Your task to perform on an android device: turn on showing notifications on the lock screen Image 0: 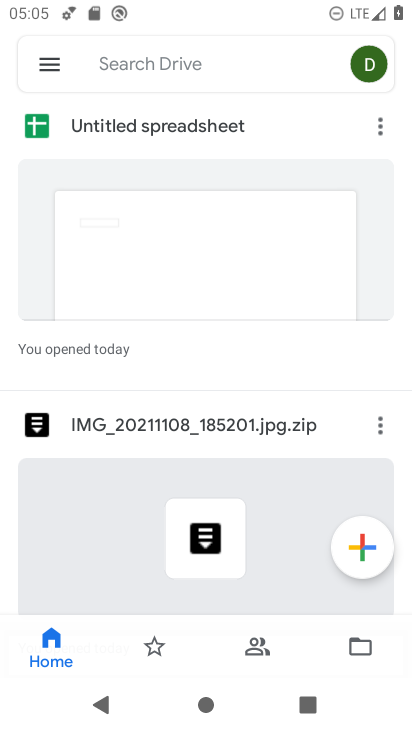
Step 0: press home button
Your task to perform on an android device: turn on showing notifications on the lock screen Image 1: 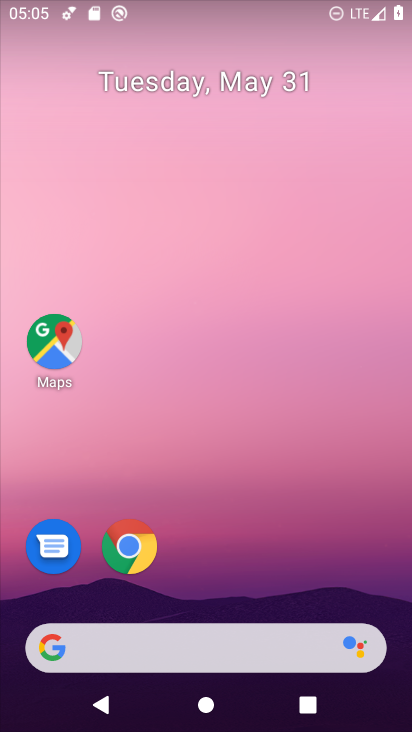
Step 1: drag from (214, 606) to (250, 282)
Your task to perform on an android device: turn on showing notifications on the lock screen Image 2: 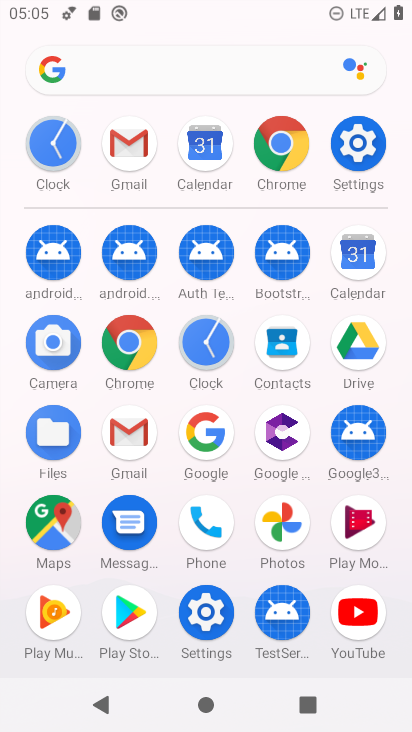
Step 2: click (348, 170)
Your task to perform on an android device: turn on showing notifications on the lock screen Image 3: 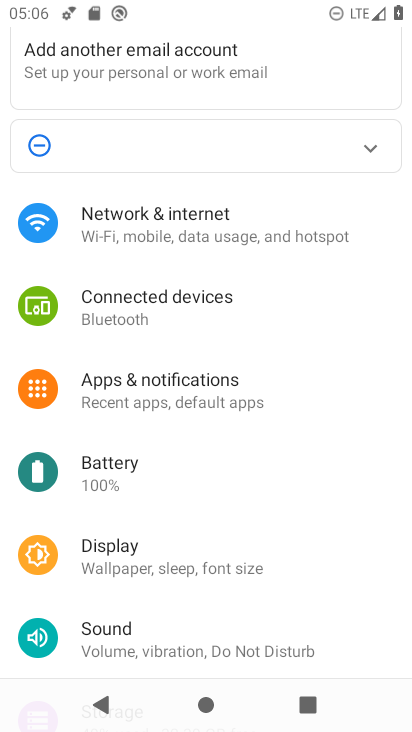
Step 3: click (172, 406)
Your task to perform on an android device: turn on showing notifications on the lock screen Image 4: 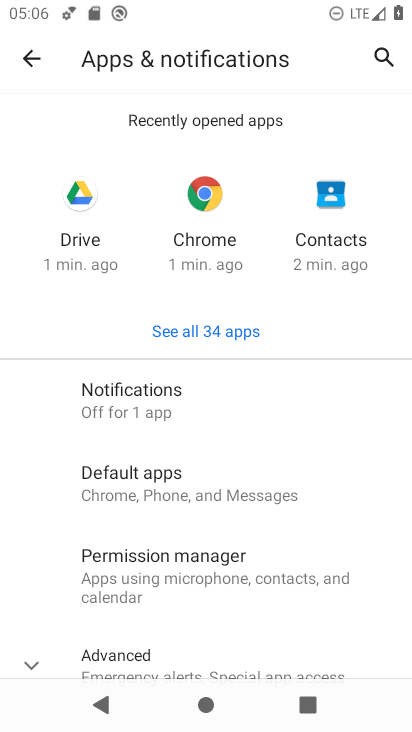
Step 4: click (172, 406)
Your task to perform on an android device: turn on showing notifications on the lock screen Image 5: 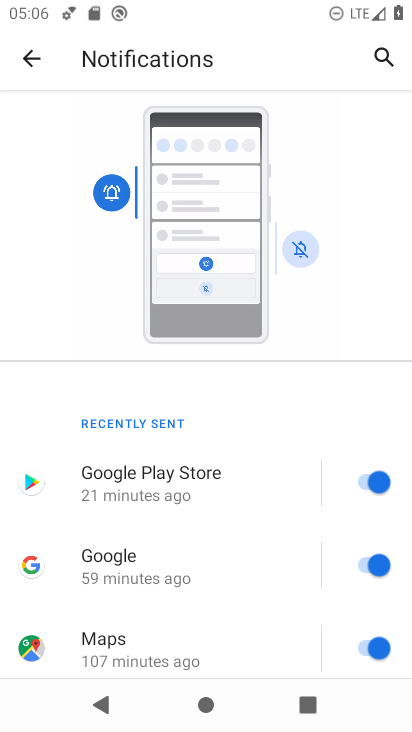
Step 5: drag from (228, 645) to (235, 416)
Your task to perform on an android device: turn on showing notifications on the lock screen Image 6: 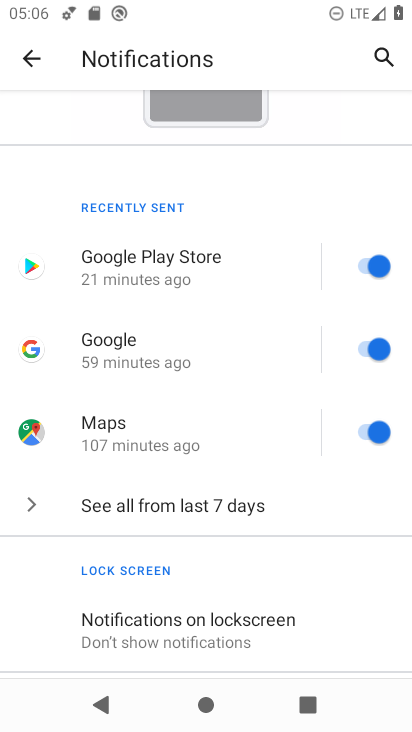
Step 6: click (123, 613)
Your task to perform on an android device: turn on showing notifications on the lock screen Image 7: 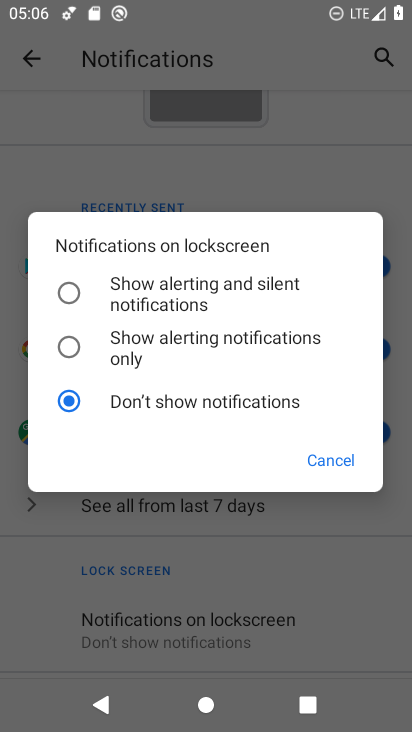
Step 7: task complete